Your task to perform on an android device: What's the weather? Image 0: 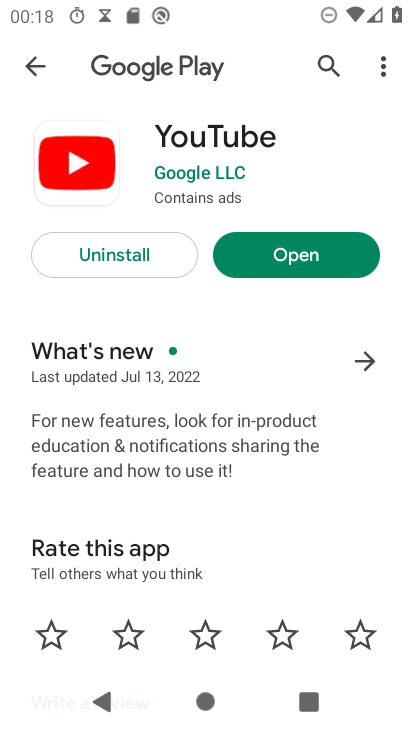
Step 0: press home button
Your task to perform on an android device: What's the weather? Image 1: 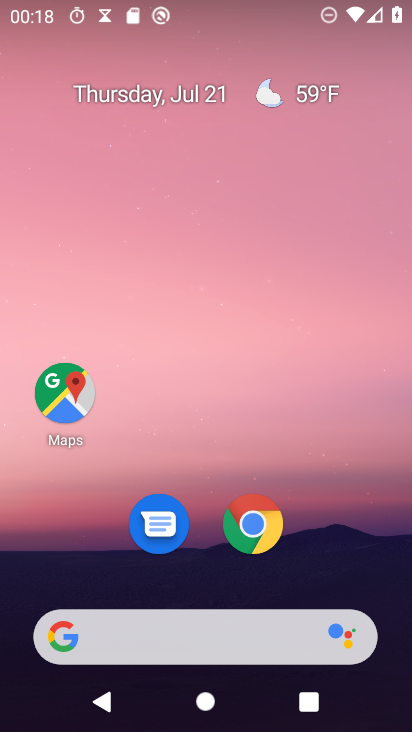
Step 1: click (157, 625)
Your task to perform on an android device: What's the weather? Image 2: 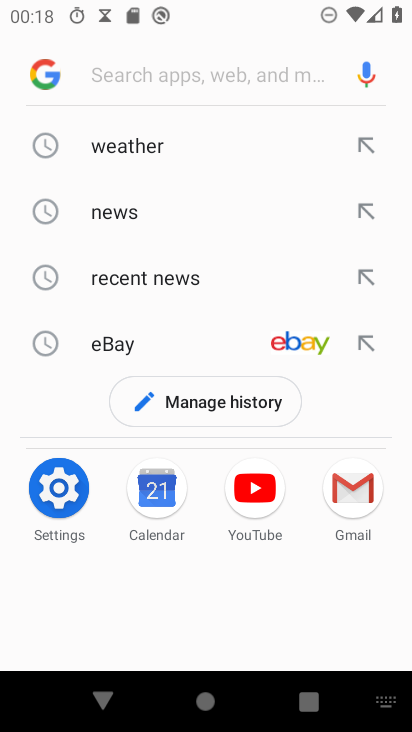
Step 2: click (145, 142)
Your task to perform on an android device: What's the weather? Image 3: 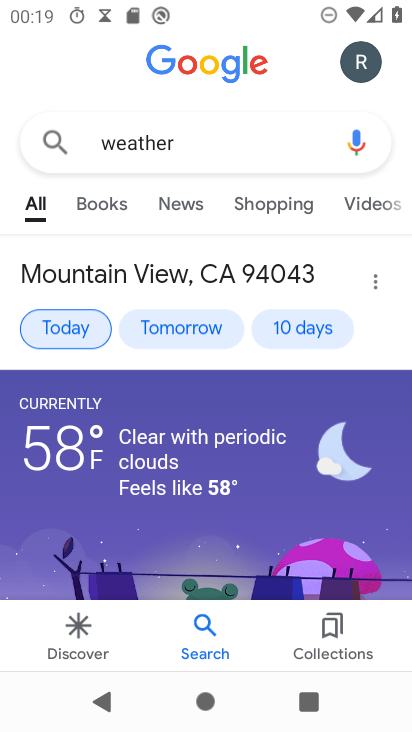
Step 3: task complete